Your task to perform on an android device: open chrome privacy settings Image 0: 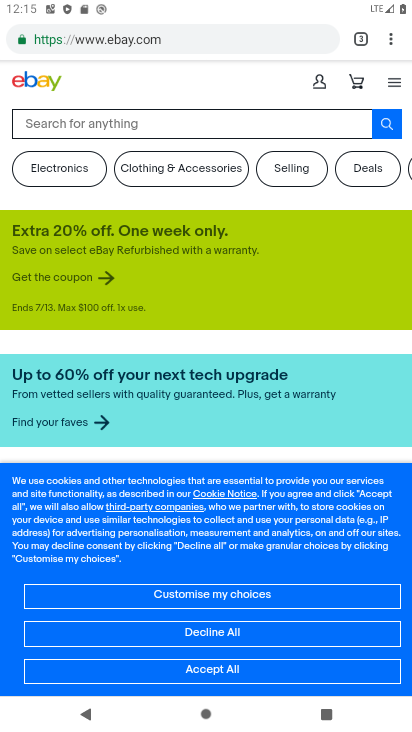
Step 0: press back button
Your task to perform on an android device: open chrome privacy settings Image 1: 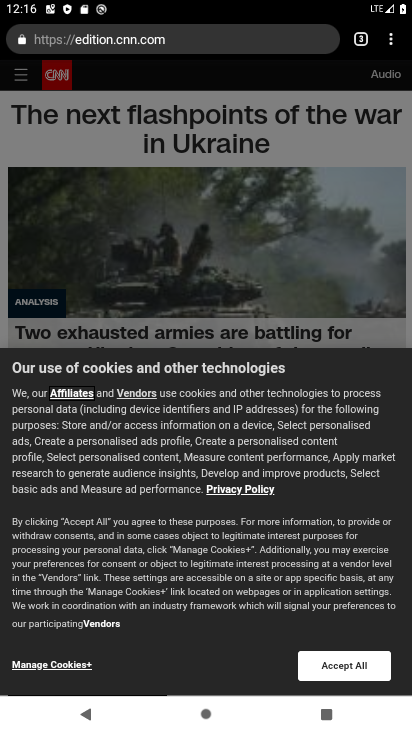
Step 1: drag from (388, 44) to (249, 479)
Your task to perform on an android device: open chrome privacy settings Image 2: 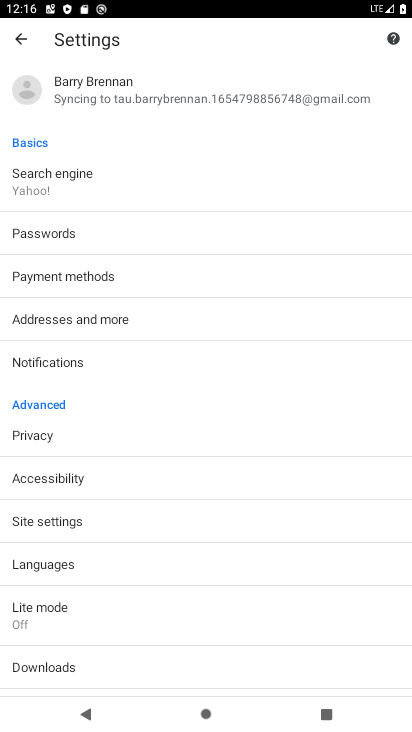
Step 2: click (53, 436)
Your task to perform on an android device: open chrome privacy settings Image 3: 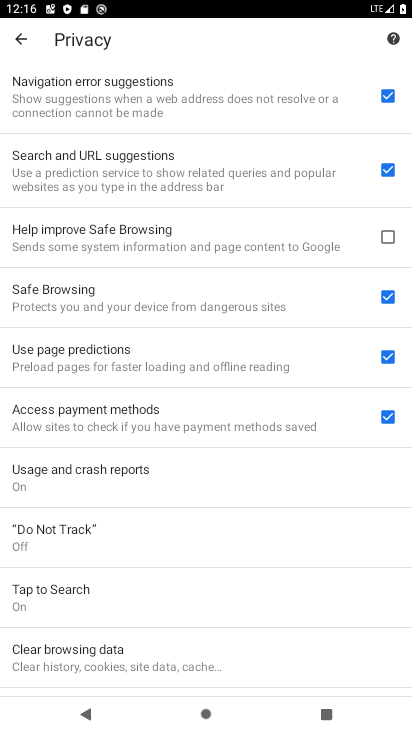
Step 3: task complete